Your task to perform on an android device: Open the calendar app, open the side menu, and click the "Day" option Image 0: 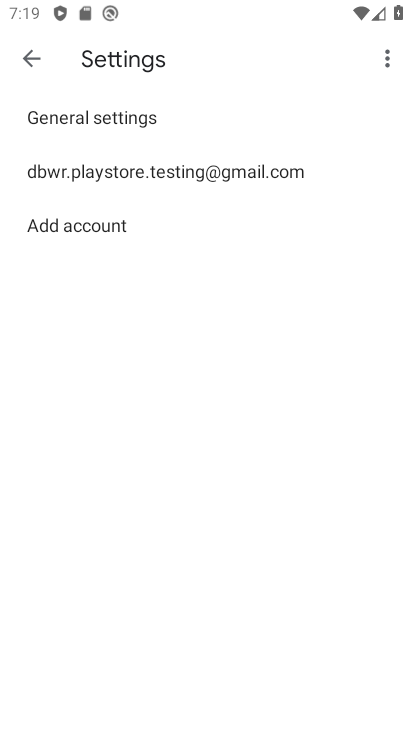
Step 0: press home button
Your task to perform on an android device: Open the calendar app, open the side menu, and click the "Day" option Image 1: 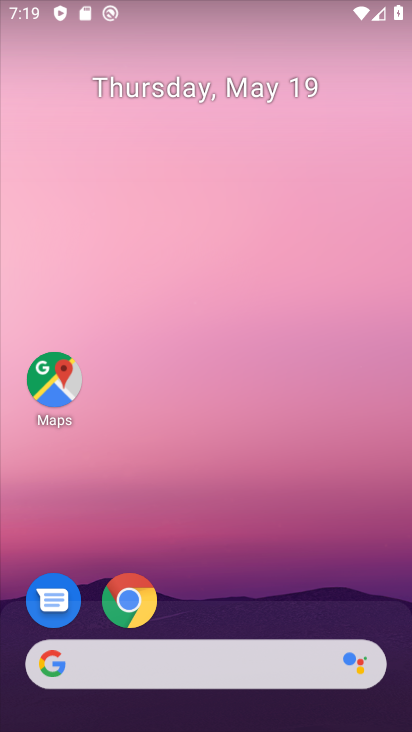
Step 1: drag from (308, 592) to (333, 193)
Your task to perform on an android device: Open the calendar app, open the side menu, and click the "Day" option Image 2: 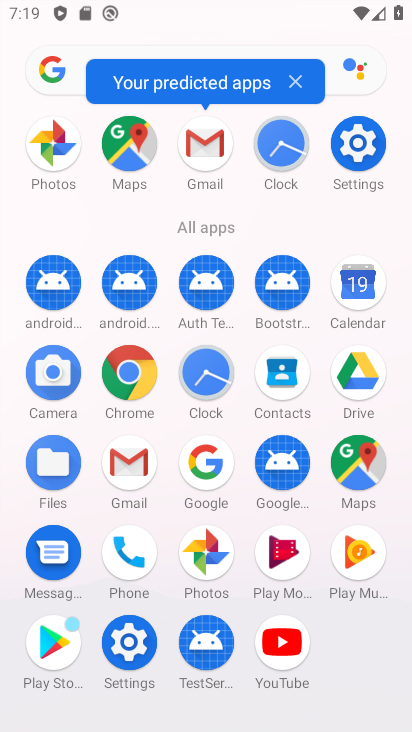
Step 2: click (362, 303)
Your task to perform on an android device: Open the calendar app, open the side menu, and click the "Day" option Image 3: 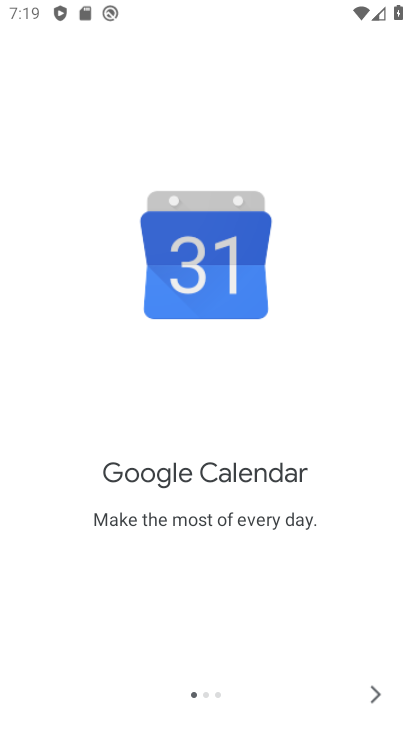
Step 3: click (372, 697)
Your task to perform on an android device: Open the calendar app, open the side menu, and click the "Day" option Image 4: 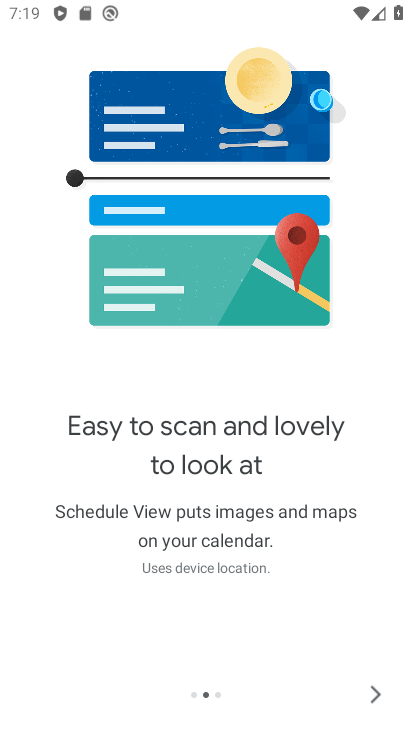
Step 4: click (372, 697)
Your task to perform on an android device: Open the calendar app, open the side menu, and click the "Day" option Image 5: 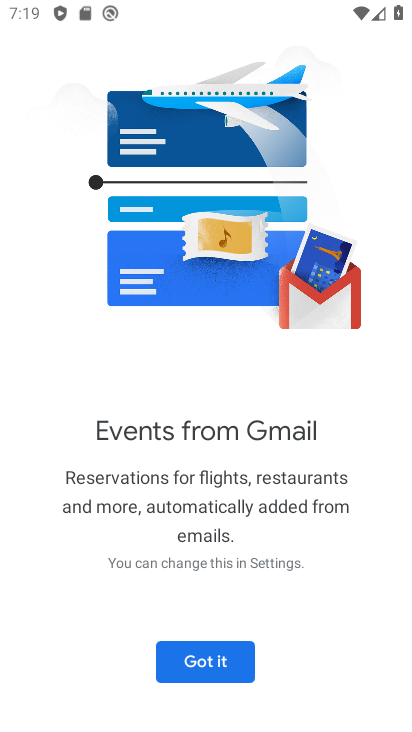
Step 5: click (209, 658)
Your task to perform on an android device: Open the calendar app, open the side menu, and click the "Day" option Image 6: 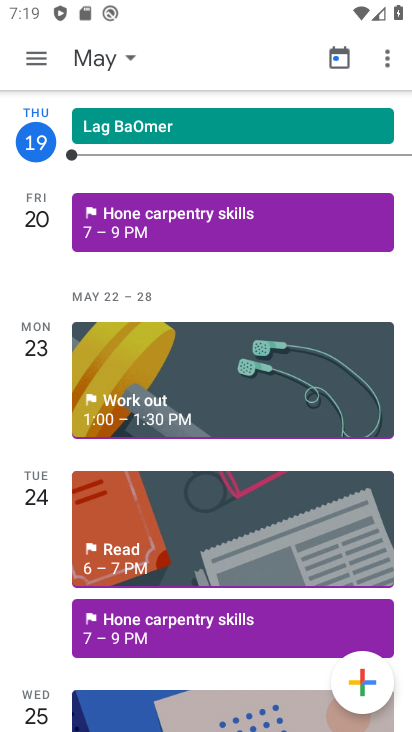
Step 6: click (44, 54)
Your task to perform on an android device: Open the calendar app, open the side menu, and click the "Day" option Image 7: 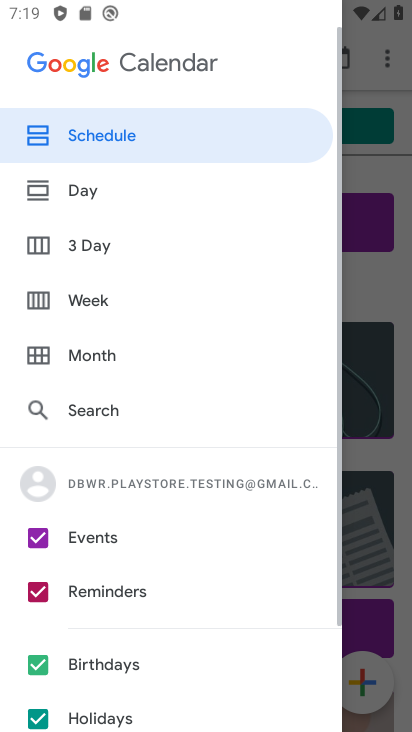
Step 7: click (71, 190)
Your task to perform on an android device: Open the calendar app, open the side menu, and click the "Day" option Image 8: 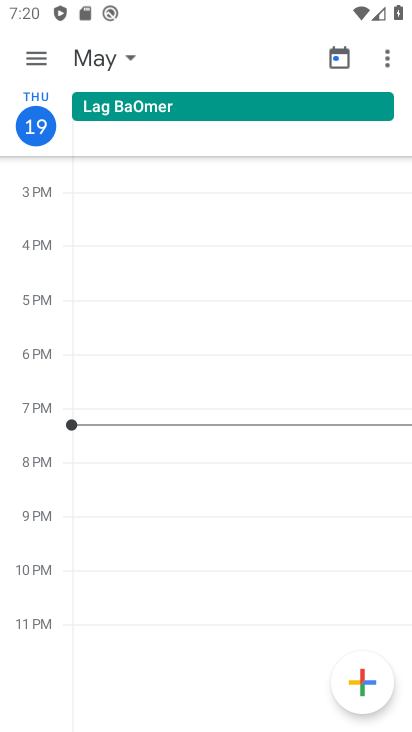
Step 8: task complete